Your task to perform on an android device: Open settings on Google Maps Image 0: 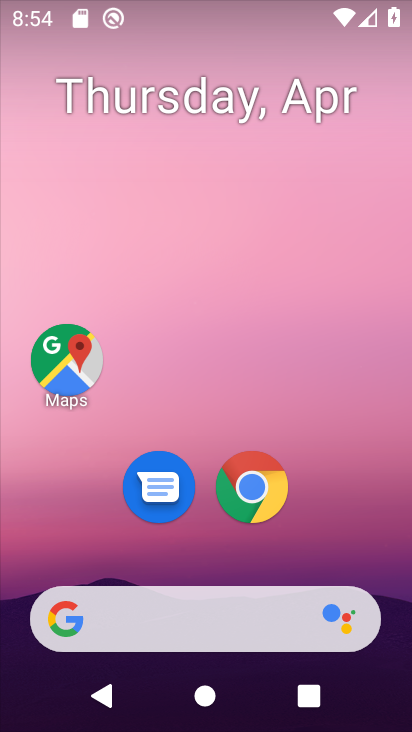
Step 0: drag from (358, 542) to (356, 145)
Your task to perform on an android device: Open settings on Google Maps Image 1: 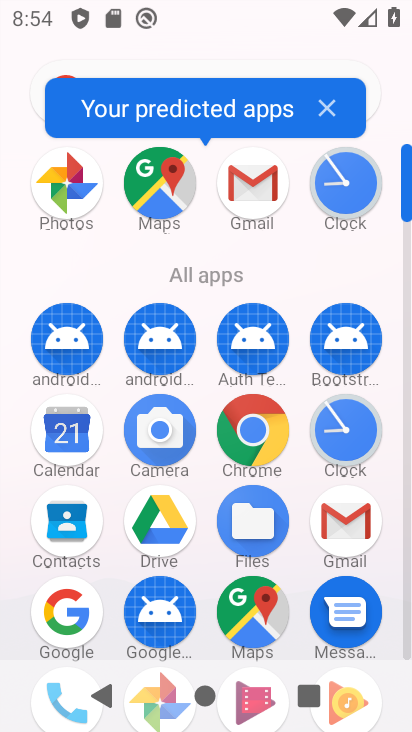
Step 1: click (259, 619)
Your task to perform on an android device: Open settings on Google Maps Image 2: 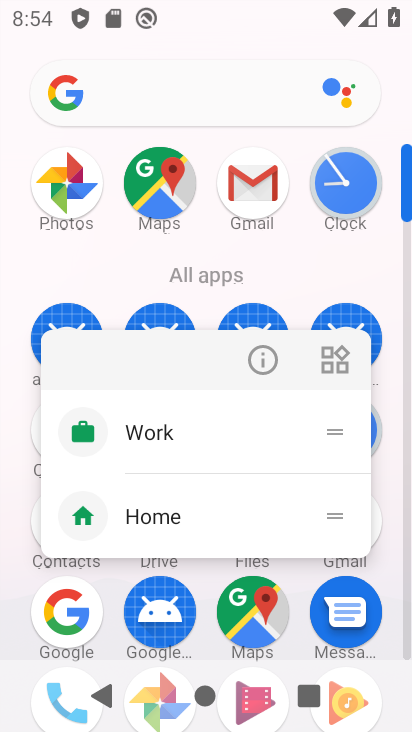
Step 2: click (253, 613)
Your task to perform on an android device: Open settings on Google Maps Image 3: 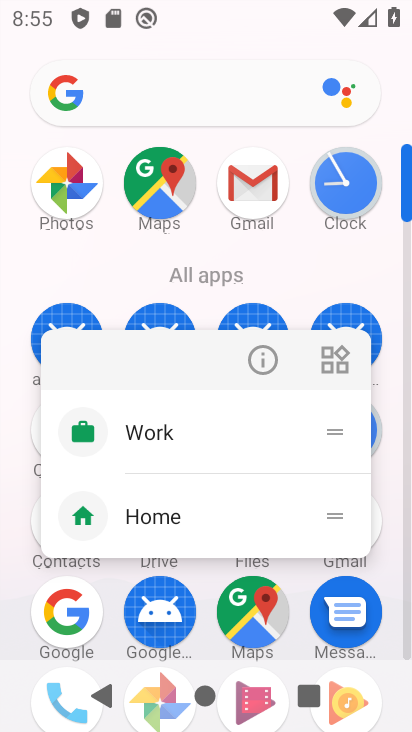
Step 3: click (256, 614)
Your task to perform on an android device: Open settings on Google Maps Image 4: 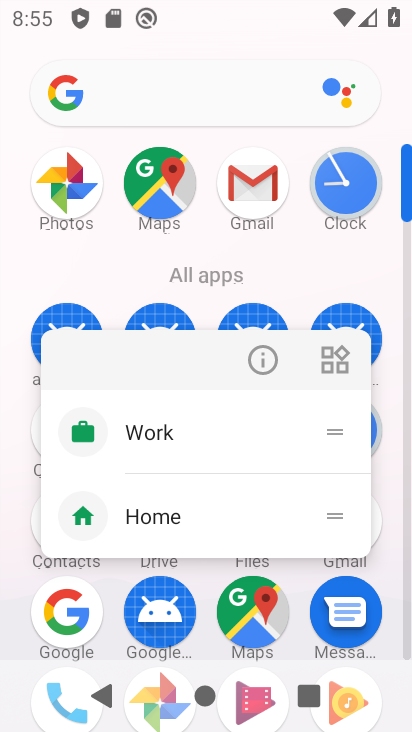
Step 4: click (257, 629)
Your task to perform on an android device: Open settings on Google Maps Image 5: 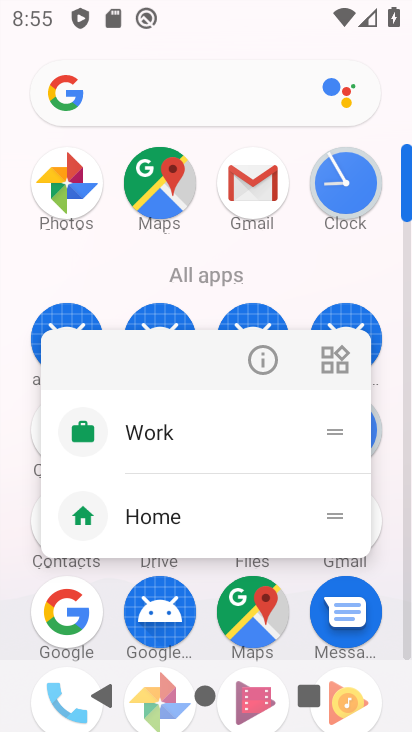
Step 5: click (231, 607)
Your task to perform on an android device: Open settings on Google Maps Image 6: 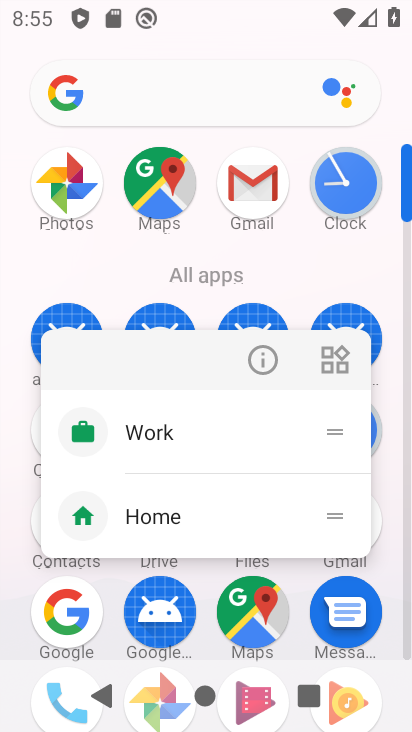
Step 6: click (233, 640)
Your task to perform on an android device: Open settings on Google Maps Image 7: 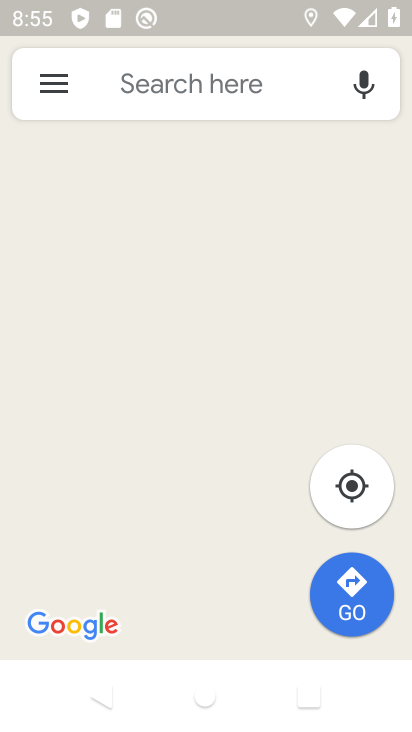
Step 7: click (51, 80)
Your task to perform on an android device: Open settings on Google Maps Image 8: 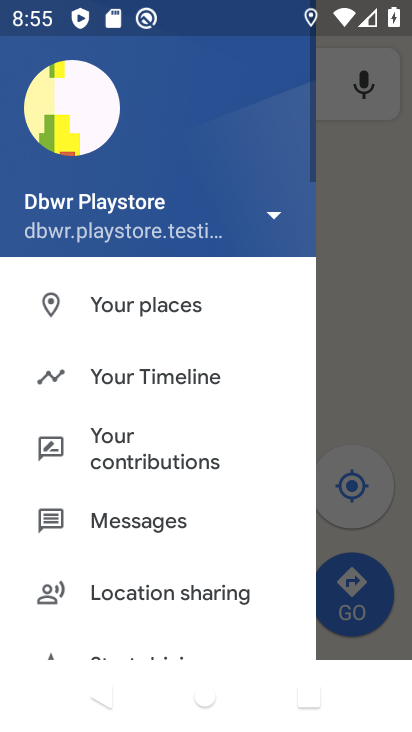
Step 8: click (105, 386)
Your task to perform on an android device: Open settings on Google Maps Image 9: 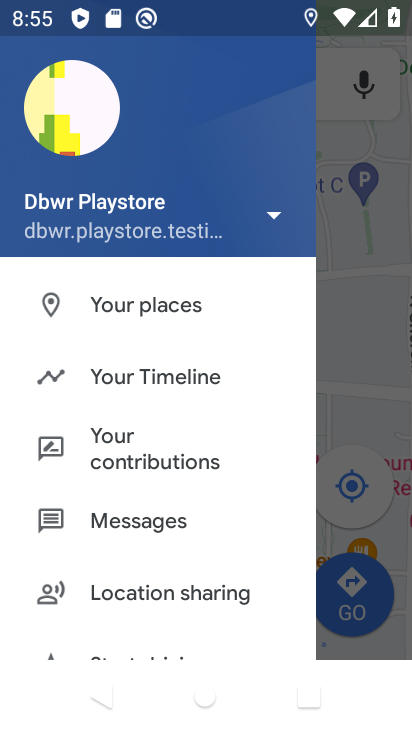
Step 9: click (198, 384)
Your task to perform on an android device: Open settings on Google Maps Image 10: 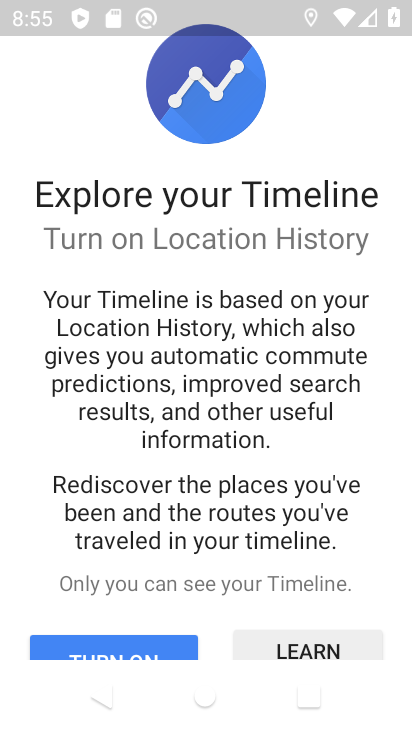
Step 10: drag from (310, 595) to (323, 249)
Your task to perform on an android device: Open settings on Google Maps Image 11: 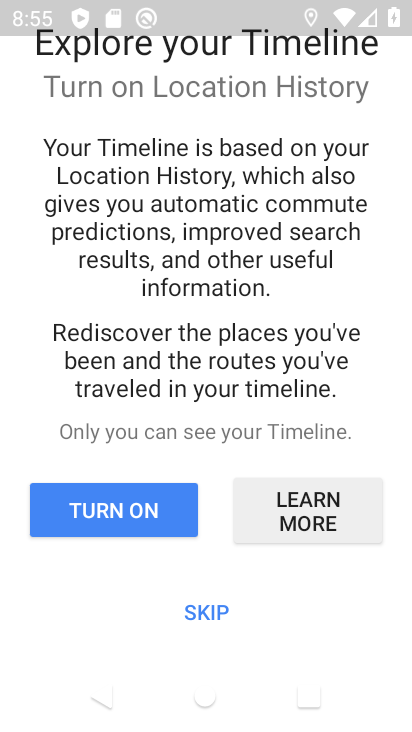
Step 11: click (218, 613)
Your task to perform on an android device: Open settings on Google Maps Image 12: 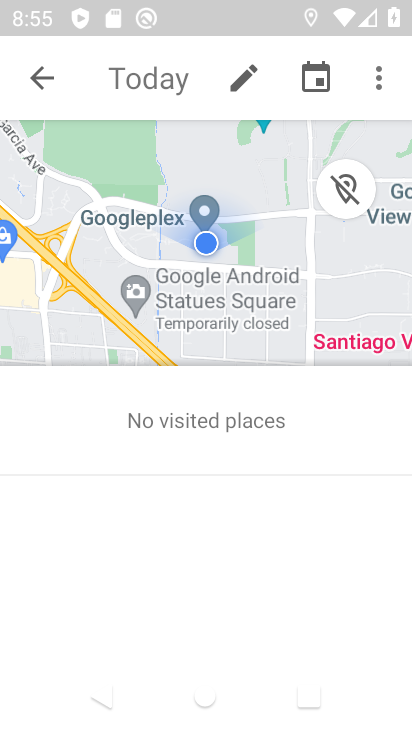
Step 12: click (377, 88)
Your task to perform on an android device: Open settings on Google Maps Image 13: 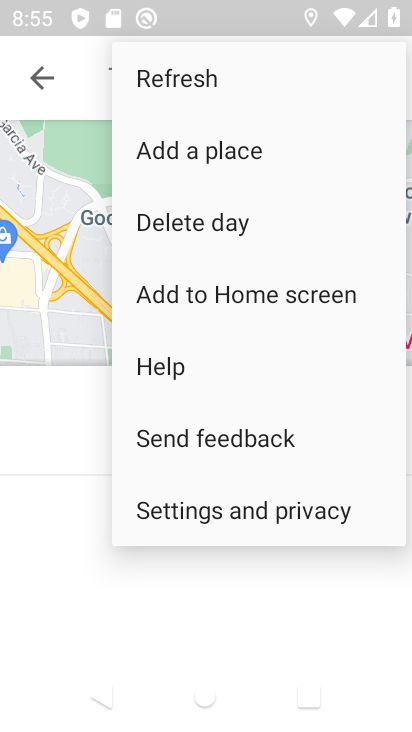
Step 13: click (261, 504)
Your task to perform on an android device: Open settings on Google Maps Image 14: 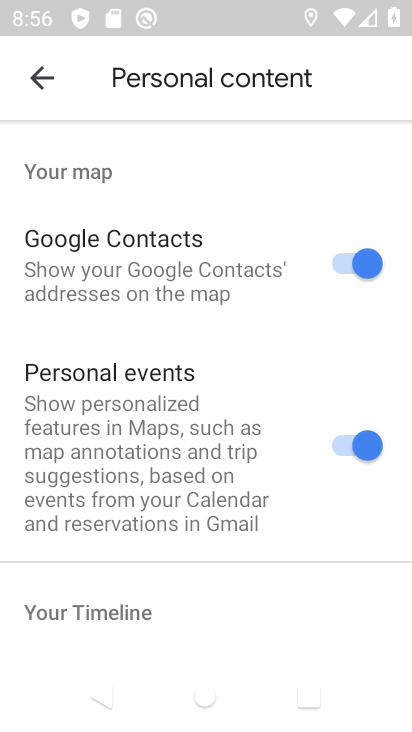
Step 14: task complete